Your task to perform on an android device: find snoozed emails in the gmail app Image 0: 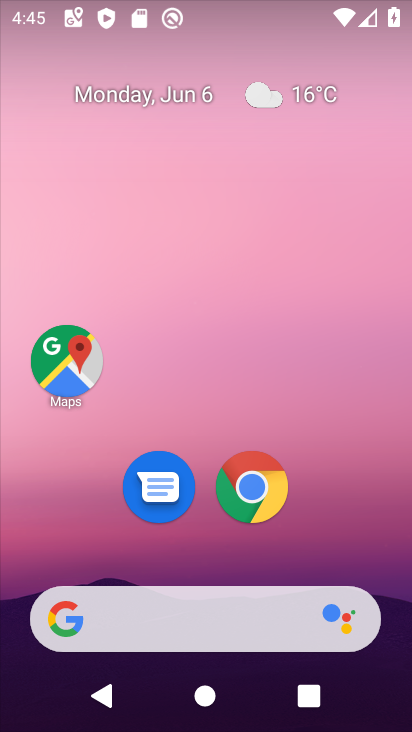
Step 0: drag from (349, 526) to (329, 4)
Your task to perform on an android device: find snoozed emails in the gmail app Image 1: 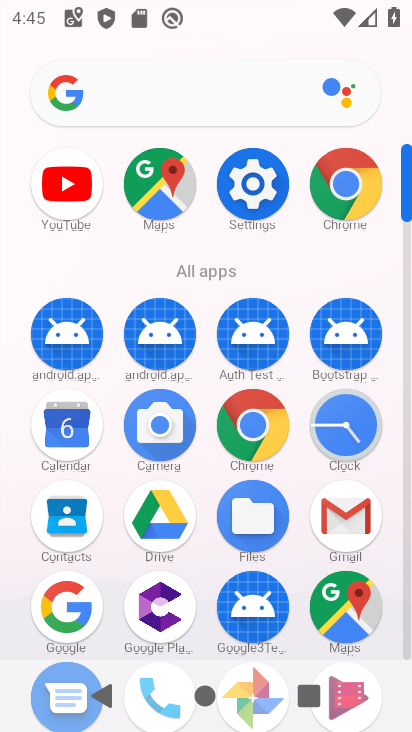
Step 1: click (327, 514)
Your task to perform on an android device: find snoozed emails in the gmail app Image 2: 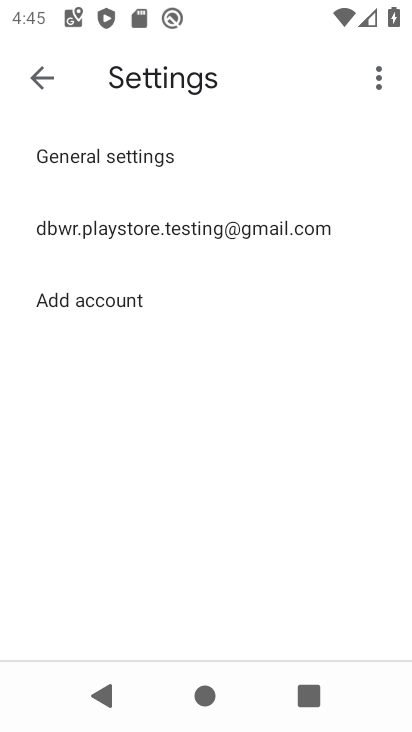
Step 2: click (40, 70)
Your task to perform on an android device: find snoozed emails in the gmail app Image 3: 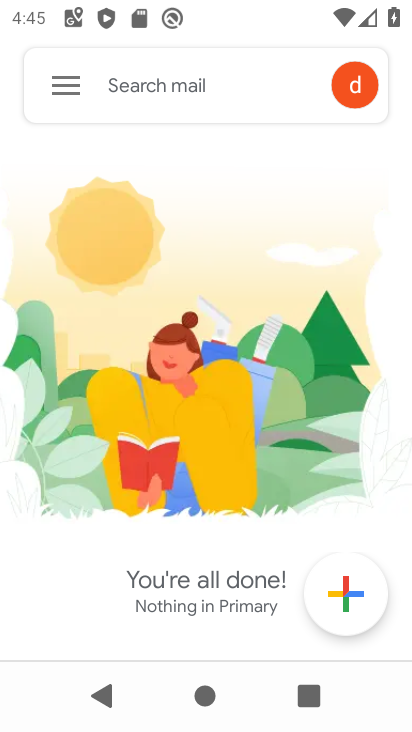
Step 3: click (57, 79)
Your task to perform on an android device: find snoozed emails in the gmail app Image 4: 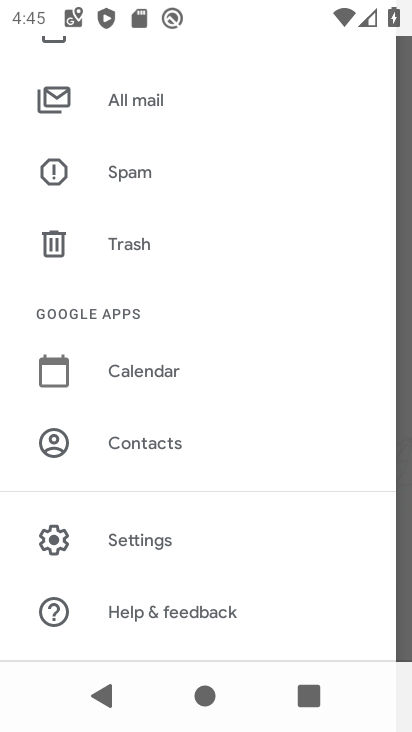
Step 4: drag from (189, 184) to (237, 576)
Your task to perform on an android device: find snoozed emails in the gmail app Image 5: 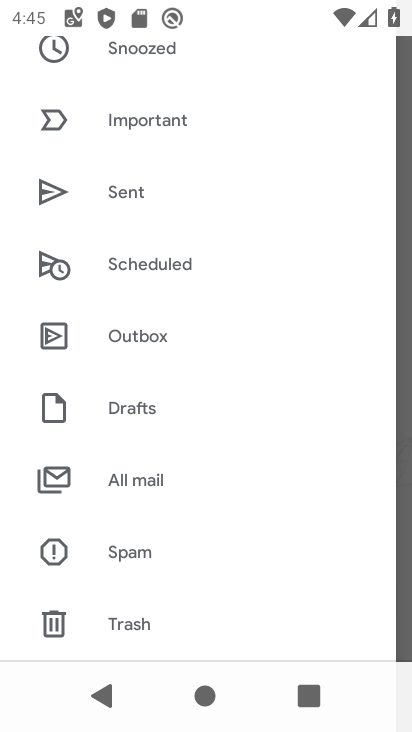
Step 5: click (195, 58)
Your task to perform on an android device: find snoozed emails in the gmail app Image 6: 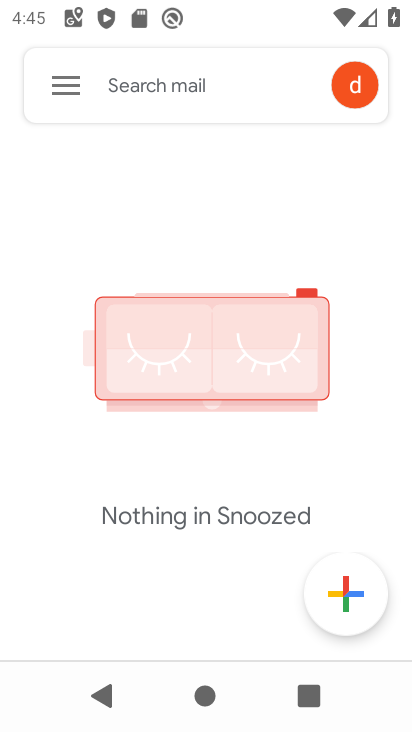
Step 6: task complete